Your task to perform on an android device: turn on javascript in the chrome app Image 0: 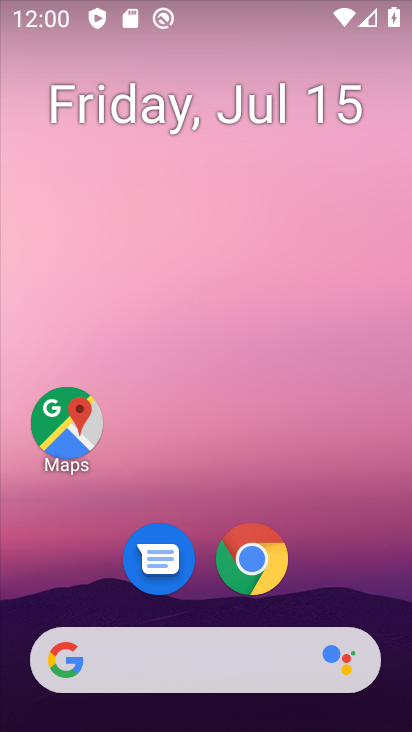
Step 0: drag from (354, 587) to (391, 114)
Your task to perform on an android device: turn on javascript in the chrome app Image 1: 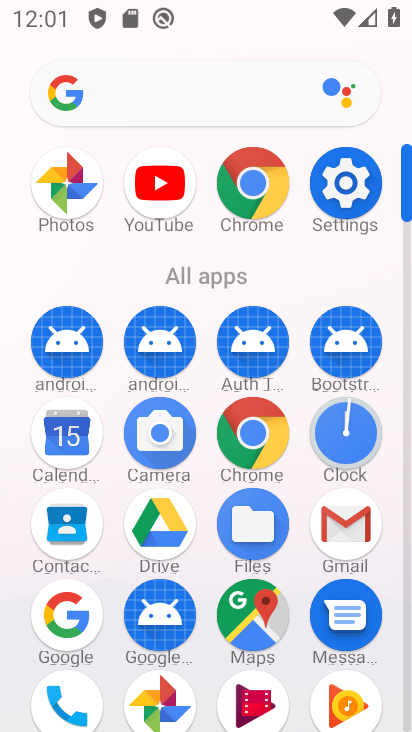
Step 1: click (259, 187)
Your task to perform on an android device: turn on javascript in the chrome app Image 2: 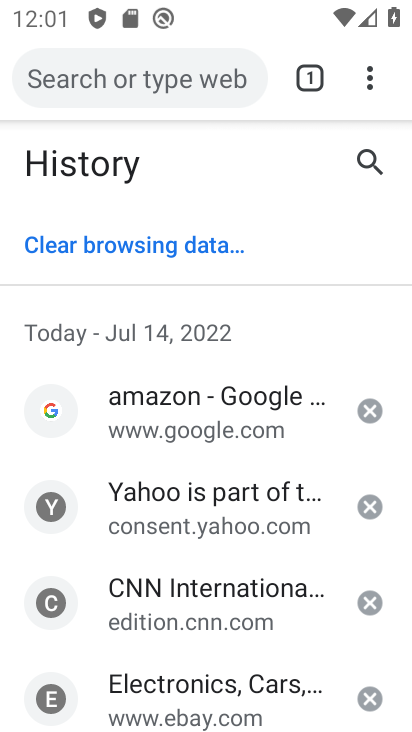
Step 2: click (369, 91)
Your task to perform on an android device: turn on javascript in the chrome app Image 3: 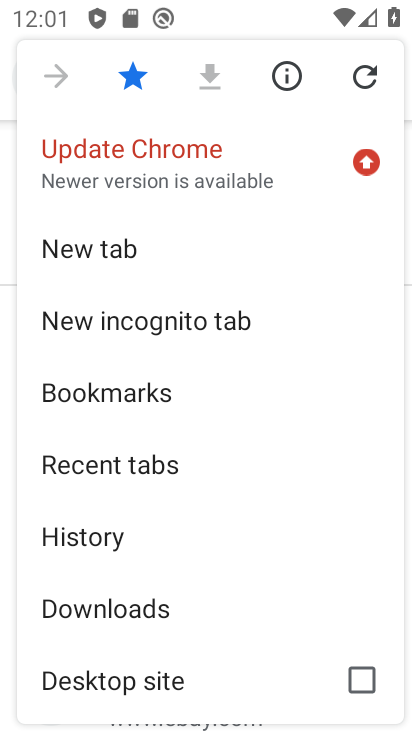
Step 3: drag from (318, 380) to (328, 294)
Your task to perform on an android device: turn on javascript in the chrome app Image 4: 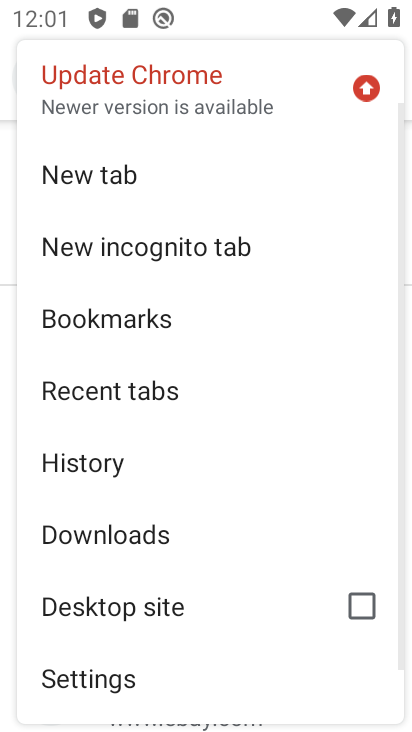
Step 4: drag from (310, 430) to (312, 295)
Your task to perform on an android device: turn on javascript in the chrome app Image 5: 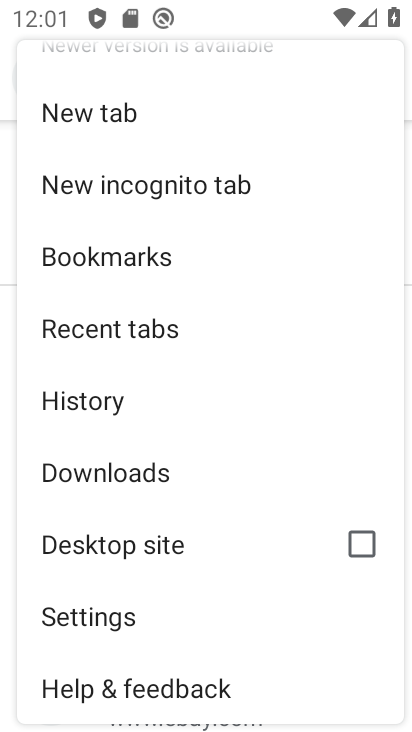
Step 5: click (237, 604)
Your task to perform on an android device: turn on javascript in the chrome app Image 6: 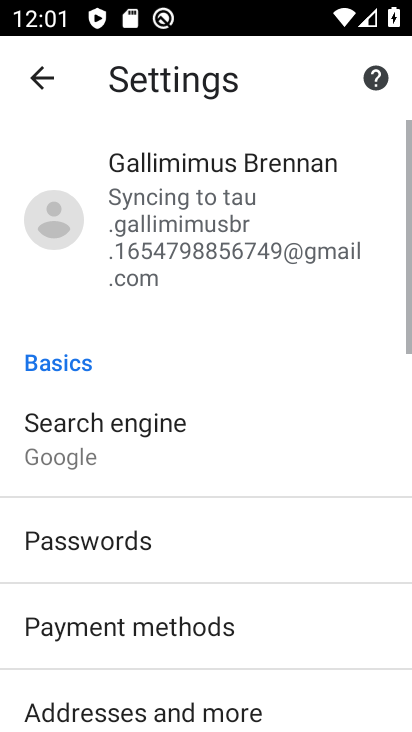
Step 6: drag from (282, 583) to (299, 492)
Your task to perform on an android device: turn on javascript in the chrome app Image 7: 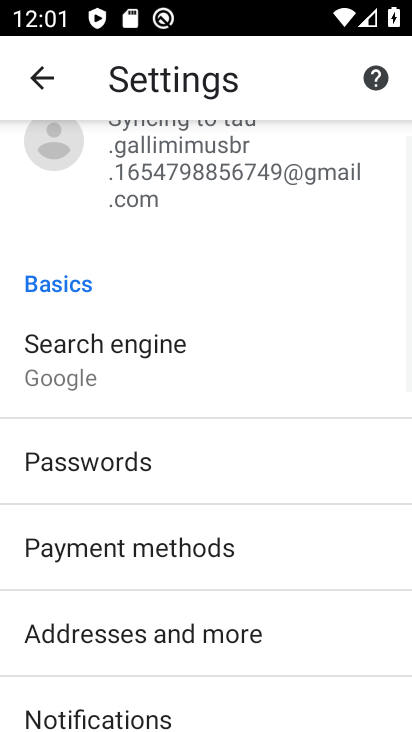
Step 7: drag from (316, 581) to (319, 491)
Your task to perform on an android device: turn on javascript in the chrome app Image 8: 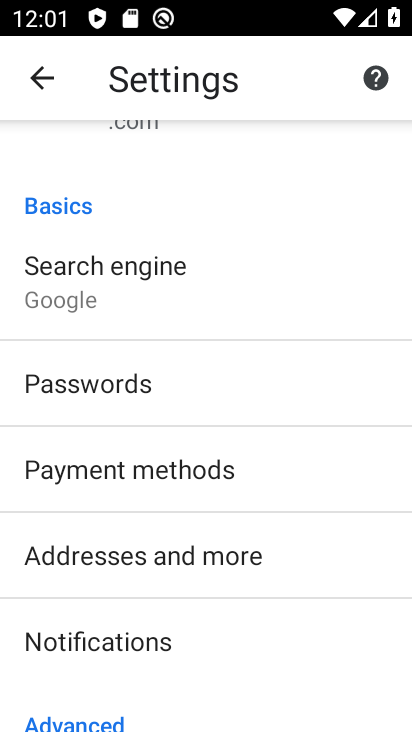
Step 8: drag from (316, 578) to (320, 485)
Your task to perform on an android device: turn on javascript in the chrome app Image 9: 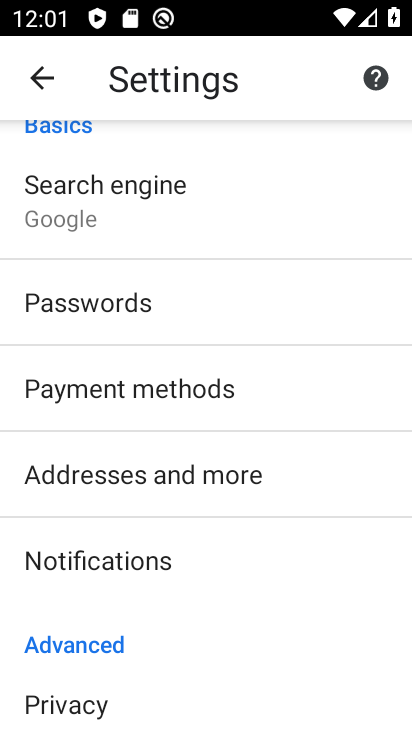
Step 9: drag from (322, 582) to (320, 438)
Your task to perform on an android device: turn on javascript in the chrome app Image 10: 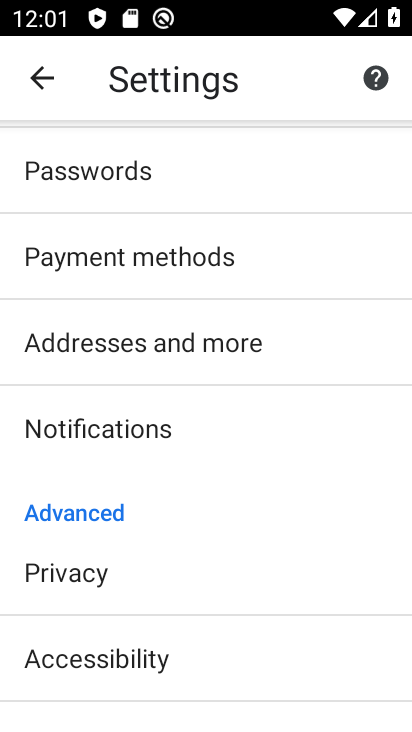
Step 10: drag from (325, 593) to (335, 312)
Your task to perform on an android device: turn on javascript in the chrome app Image 11: 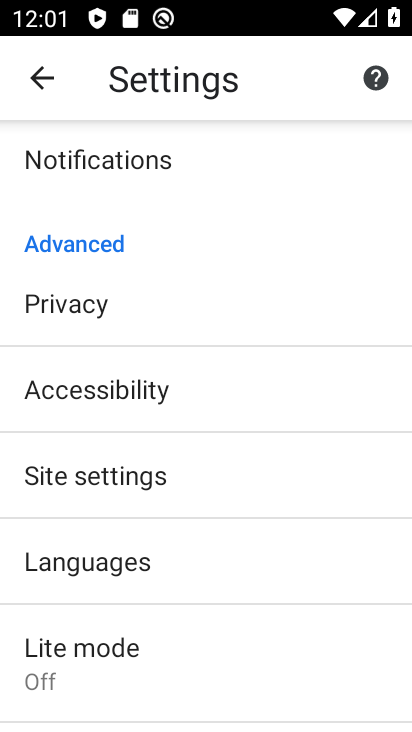
Step 11: drag from (292, 595) to (313, 439)
Your task to perform on an android device: turn on javascript in the chrome app Image 12: 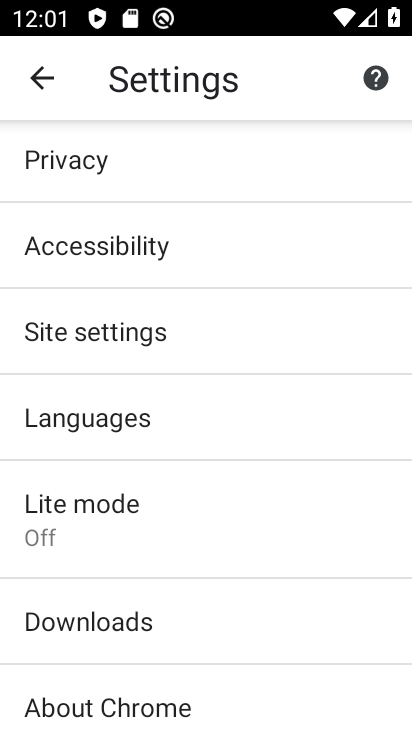
Step 12: drag from (328, 594) to (334, 423)
Your task to perform on an android device: turn on javascript in the chrome app Image 13: 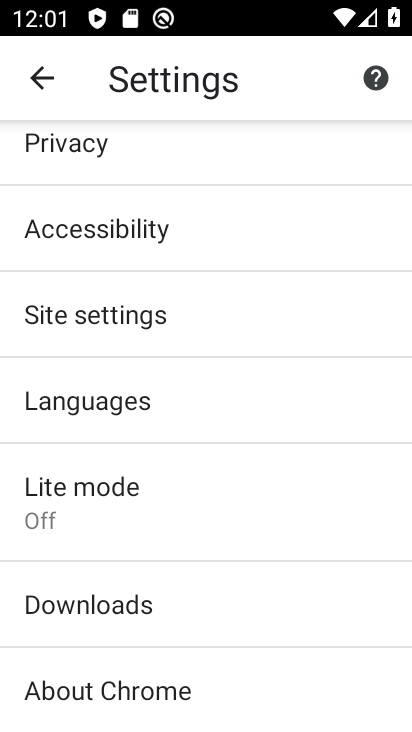
Step 13: drag from (338, 327) to (340, 433)
Your task to perform on an android device: turn on javascript in the chrome app Image 14: 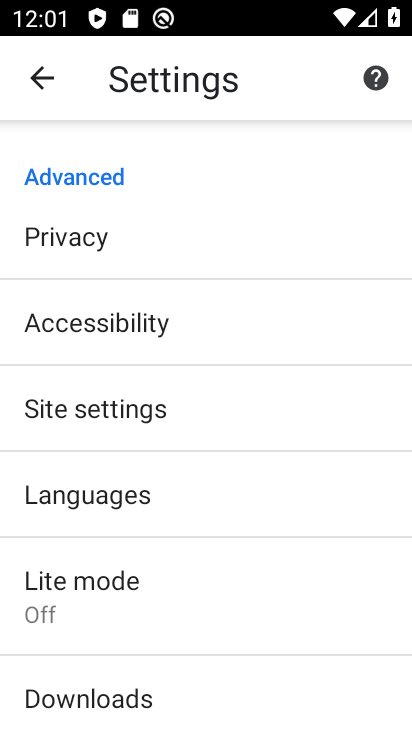
Step 14: click (311, 425)
Your task to perform on an android device: turn on javascript in the chrome app Image 15: 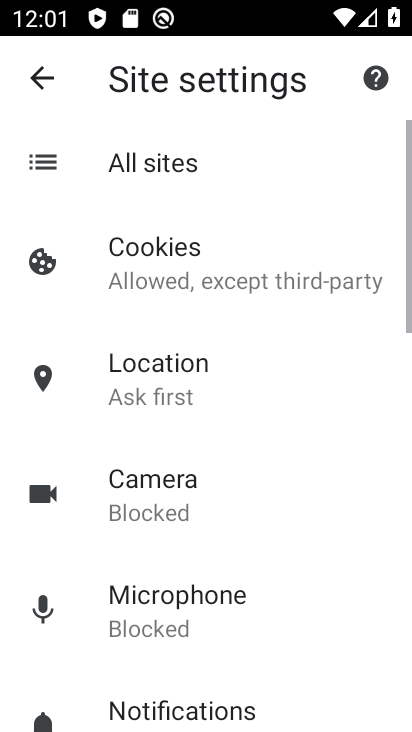
Step 15: drag from (326, 538) to (330, 407)
Your task to perform on an android device: turn on javascript in the chrome app Image 16: 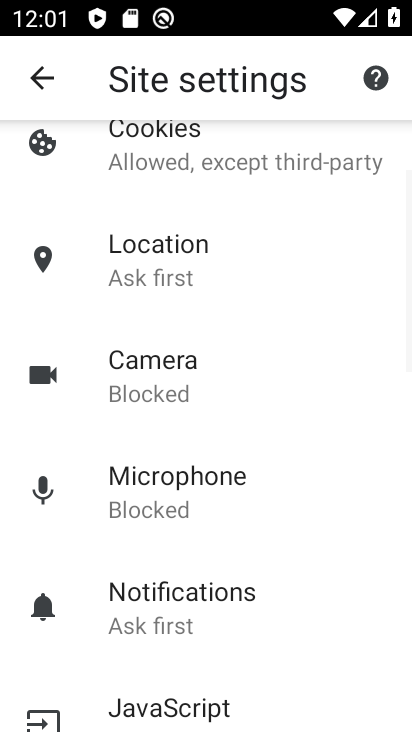
Step 16: drag from (324, 567) to (321, 467)
Your task to perform on an android device: turn on javascript in the chrome app Image 17: 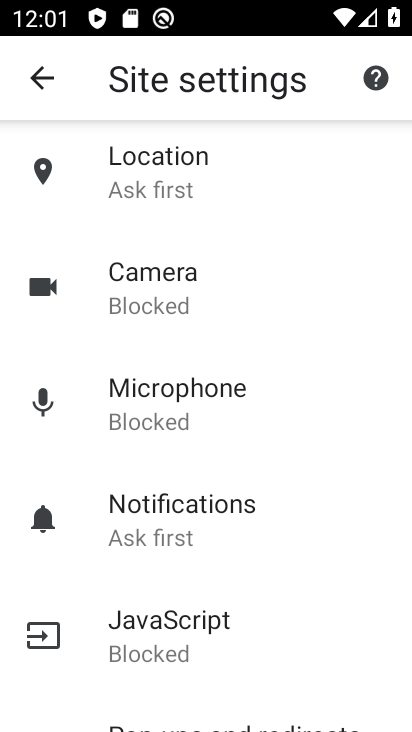
Step 17: drag from (319, 585) to (336, 476)
Your task to perform on an android device: turn on javascript in the chrome app Image 18: 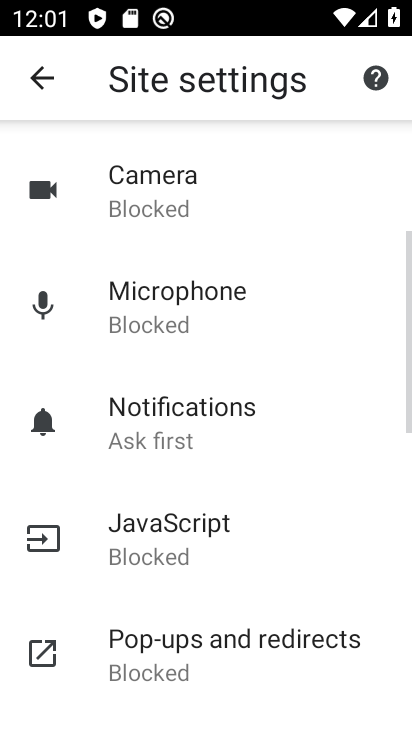
Step 18: drag from (320, 556) to (340, 416)
Your task to perform on an android device: turn on javascript in the chrome app Image 19: 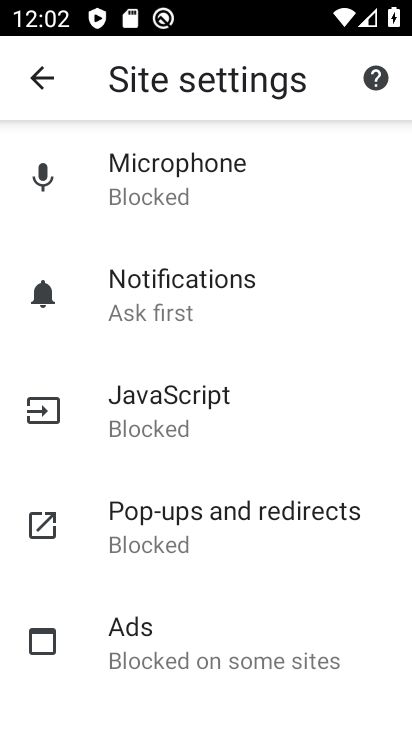
Step 19: drag from (326, 580) to (350, 350)
Your task to perform on an android device: turn on javascript in the chrome app Image 20: 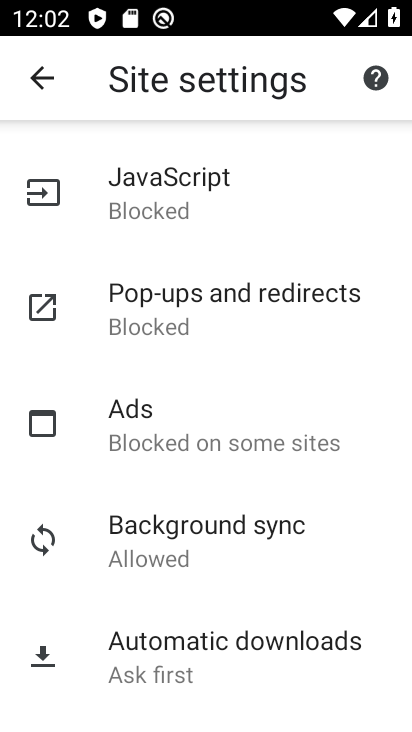
Step 20: drag from (324, 562) to (339, 356)
Your task to perform on an android device: turn on javascript in the chrome app Image 21: 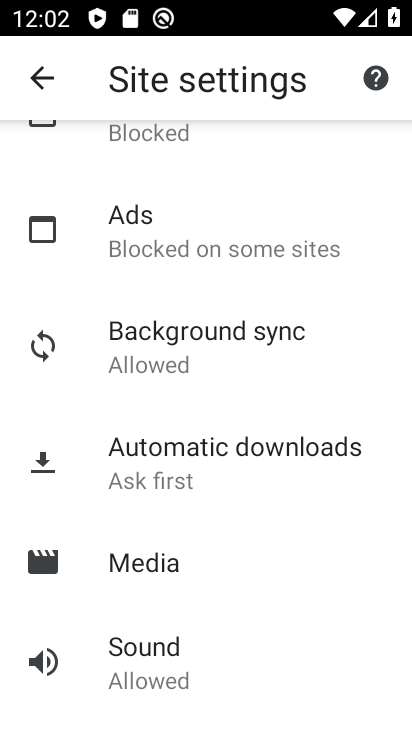
Step 21: drag from (373, 275) to (375, 495)
Your task to perform on an android device: turn on javascript in the chrome app Image 22: 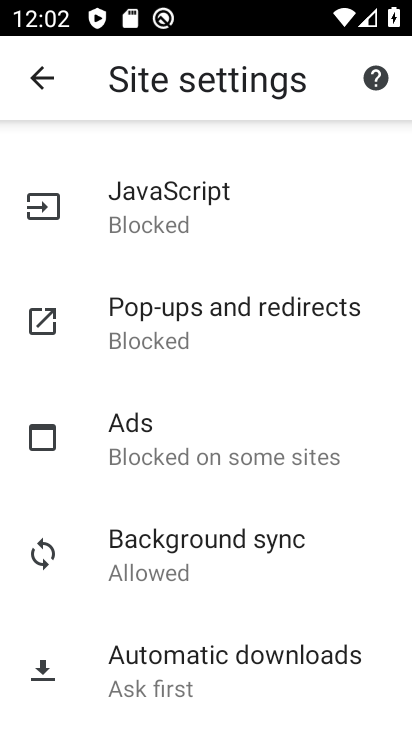
Step 22: drag from (369, 244) to (371, 442)
Your task to perform on an android device: turn on javascript in the chrome app Image 23: 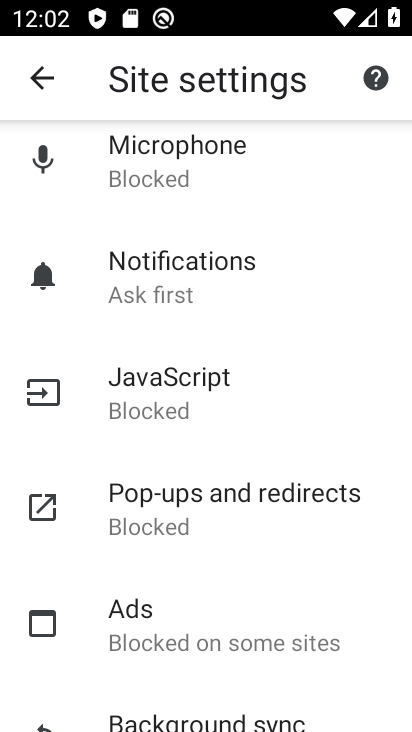
Step 23: drag from (367, 242) to (353, 426)
Your task to perform on an android device: turn on javascript in the chrome app Image 24: 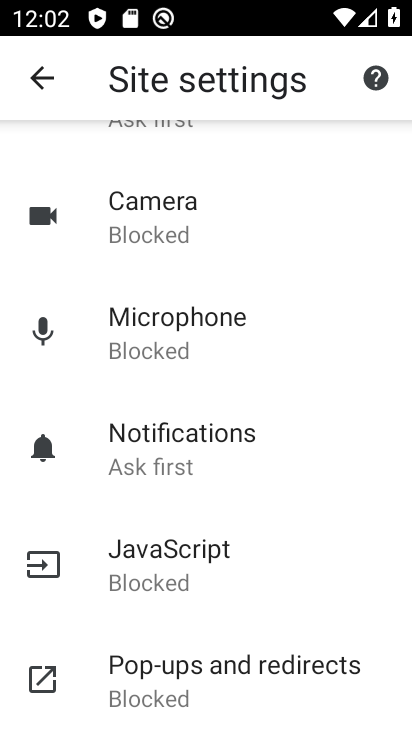
Step 24: drag from (357, 244) to (358, 401)
Your task to perform on an android device: turn on javascript in the chrome app Image 25: 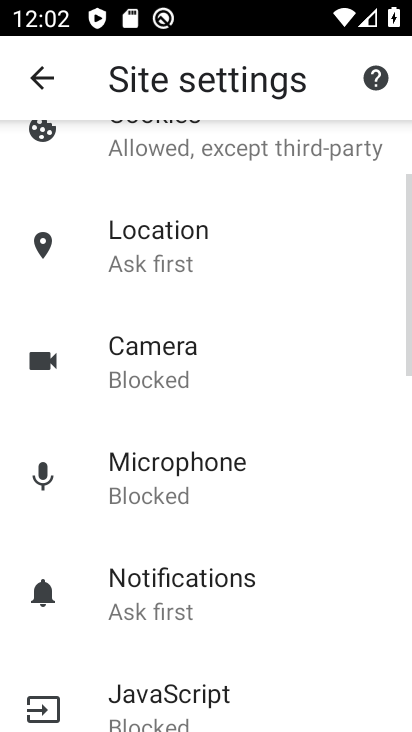
Step 25: drag from (344, 480) to (338, 177)
Your task to perform on an android device: turn on javascript in the chrome app Image 26: 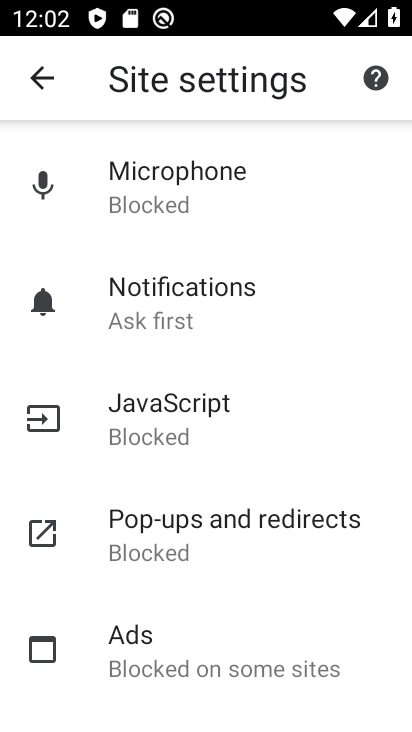
Step 26: drag from (337, 431) to (335, 278)
Your task to perform on an android device: turn on javascript in the chrome app Image 27: 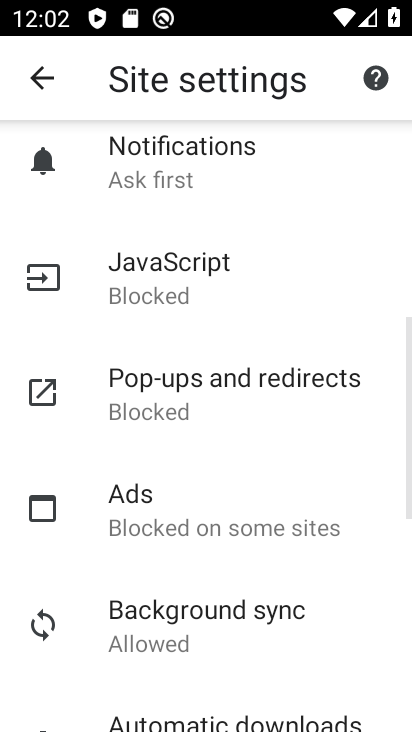
Step 27: drag from (335, 488) to (335, 310)
Your task to perform on an android device: turn on javascript in the chrome app Image 28: 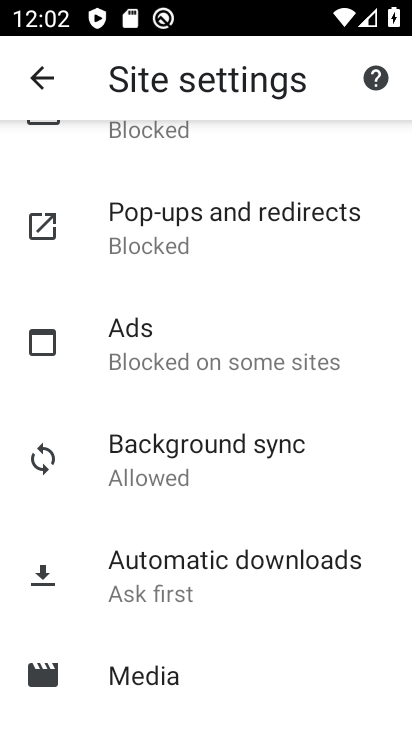
Step 28: click (257, 244)
Your task to perform on an android device: turn on javascript in the chrome app Image 29: 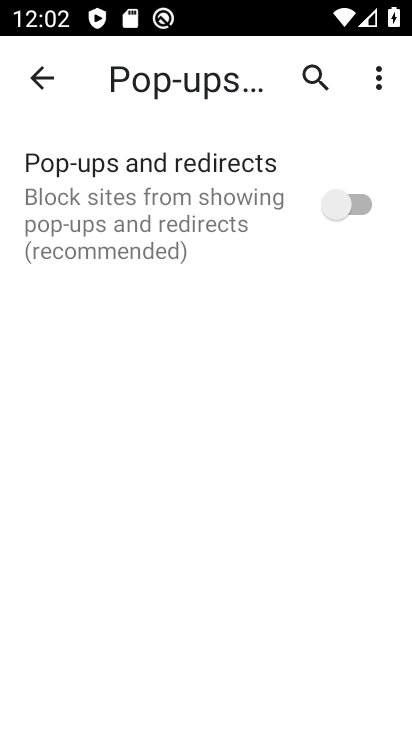
Step 29: click (343, 203)
Your task to perform on an android device: turn on javascript in the chrome app Image 30: 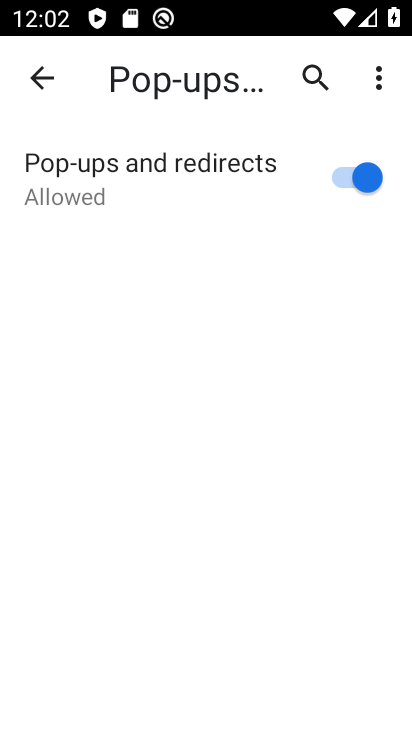
Step 30: task complete